Your task to perform on an android device: open app "LinkedIn" (install if not already installed) and go to login screen Image 0: 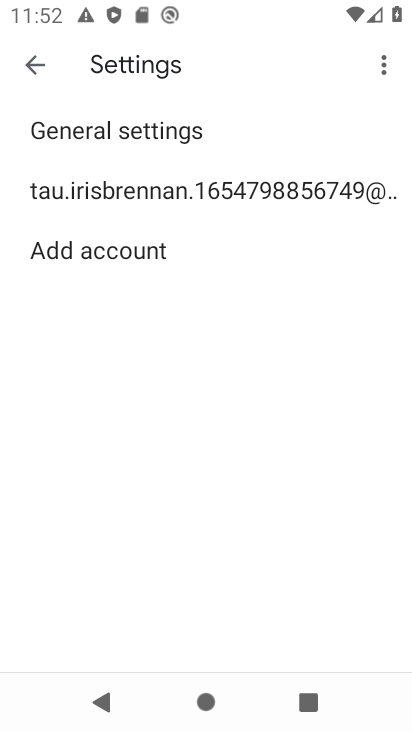
Step 0: press back button
Your task to perform on an android device: open app "LinkedIn" (install if not already installed) and go to login screen Image 1: 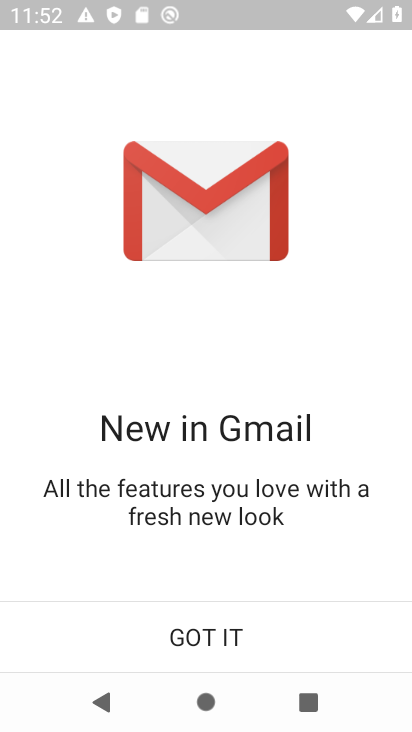
Step 1: press back button
Your task to perform on an android device: open app "LinkedIn" (install if not already installed) and go to login screen Image 2: 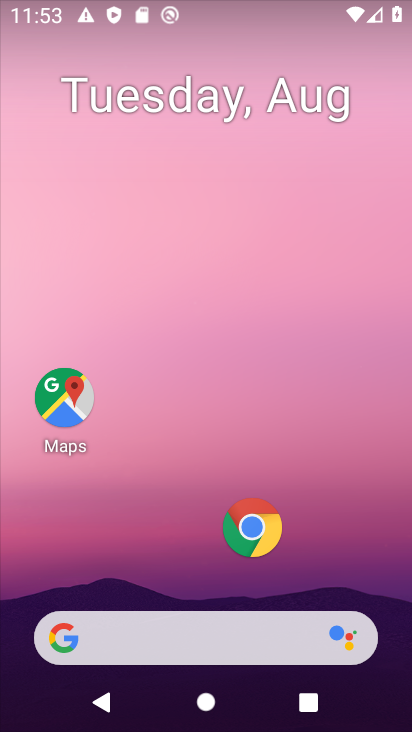
Step 2: drag from (127, 533) to (280, 97)
Your task to perform on an android device: open app "LinkedIn" (install if not already installed) and go to login screen Image 3: 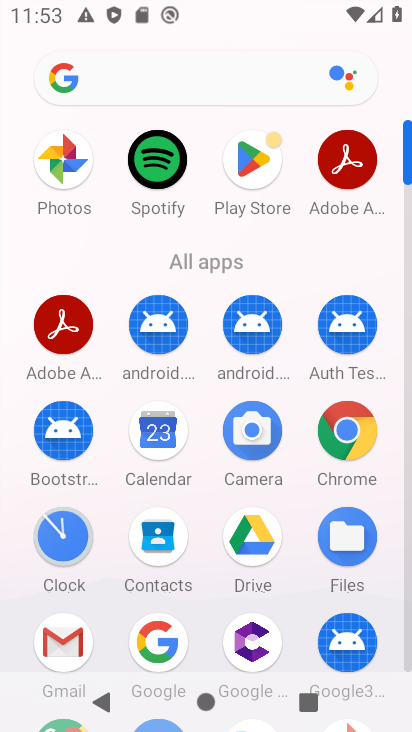
Step 3: click (248, 159)
Your task to perform on an android device: open app "LinkedIn" (install if not already installed) and go to login screen Image 4: 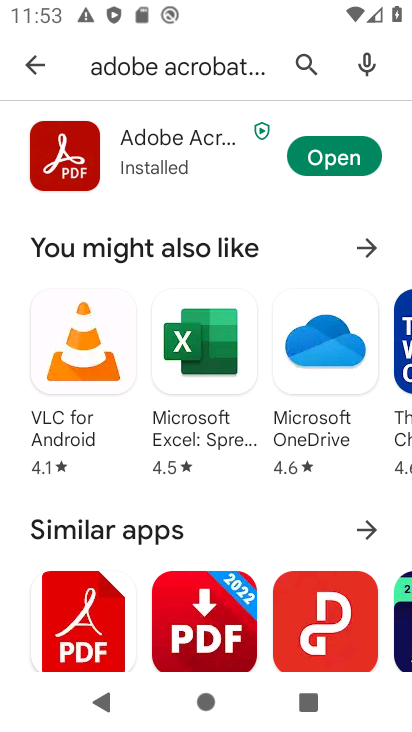
Step 4: click (314, 48)
Your task to perform on an android device: open app "LinkedIn" (install if not already installed) and go to login screen Image 5: 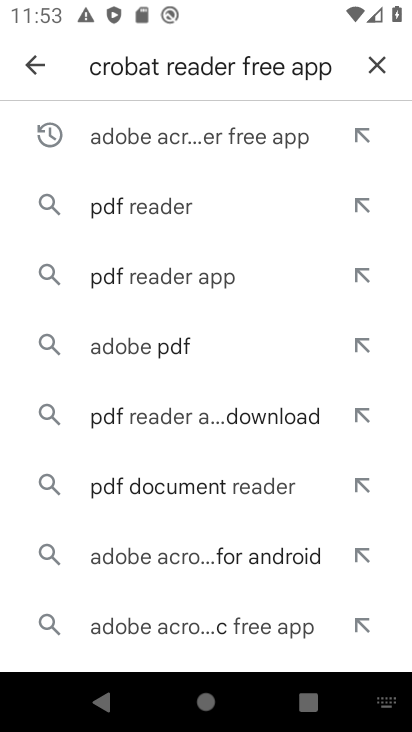
Step 5: click (379, 54)
Your task to perform on an android device: open app "LinkedIn" (install if not already installed) and go to login screen Image 6: 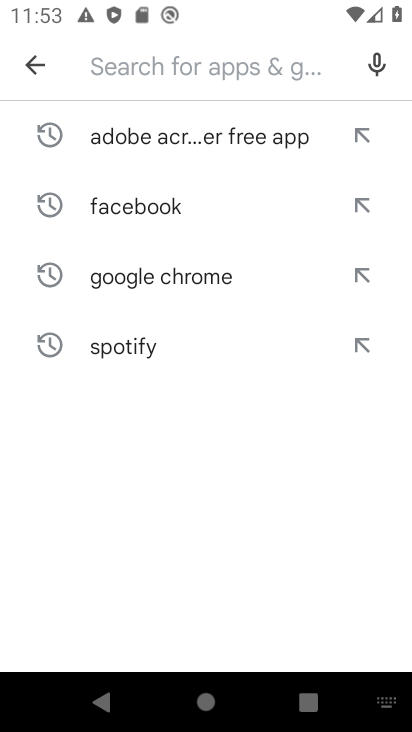
Step 6: type "linkedln"
Your task to perform on an android device: open app "LinkedIn" (install if not already installed) and go to login screen Image 7: 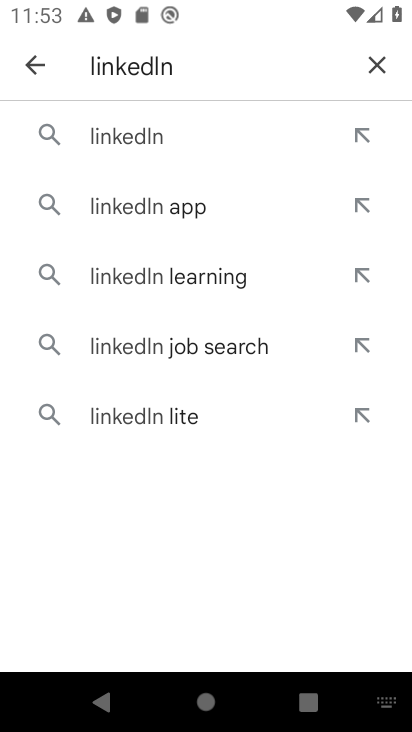
Step 7: click (192, 132)
Your task to perform on an android device: open app "LinkedIn" (install if not already installed) and go to login screen Image 8: 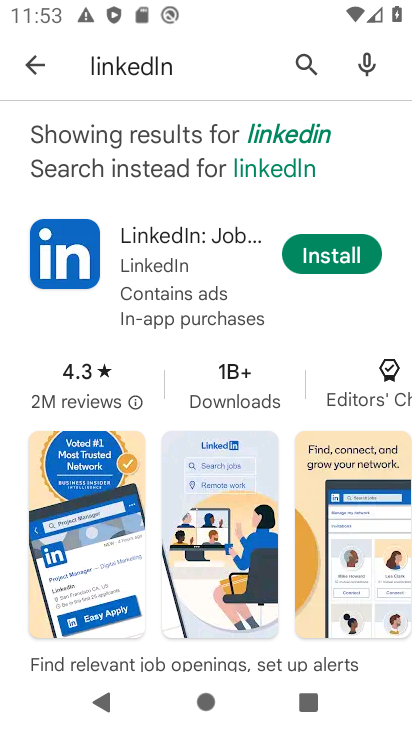
Step 8: click (306, 268)
Your task to perform on an android device: open app "LinkedIn" (install if not already installed) and go to login screen Image 9: 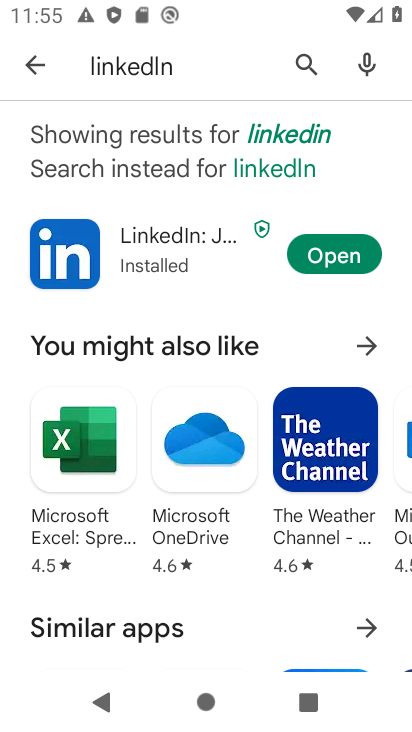
Step 9: click (293, 59)
Your task to perform on an android device: open app "LinkedIn" (install if not already installed) and go to login screen Image 10: 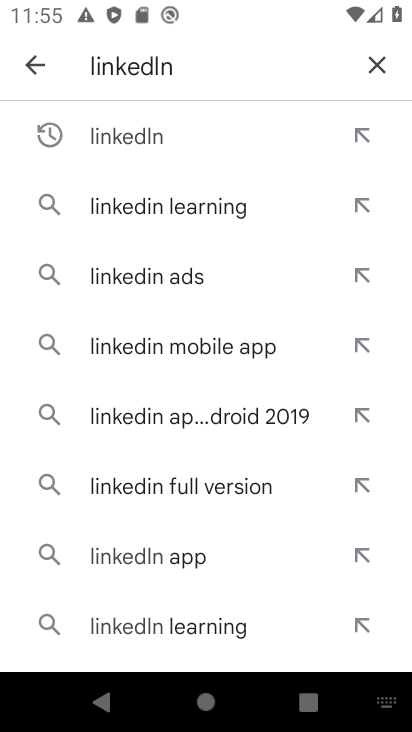
Step 10: click (163, 131)
Your task to perform on an android device: open app "LinkedIn" (install if not already installed) and go to login screen Image 11: 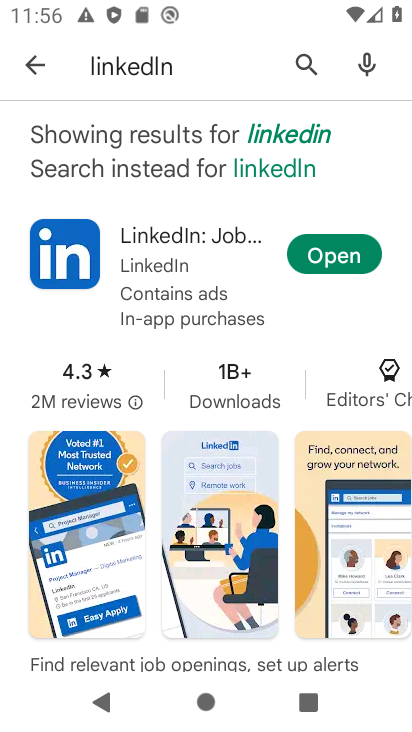
Step 11: click (355, 243)
Your task to perform on an android device: open app "LinkedIn" (install if not already installed) and go to login screen Image 12: 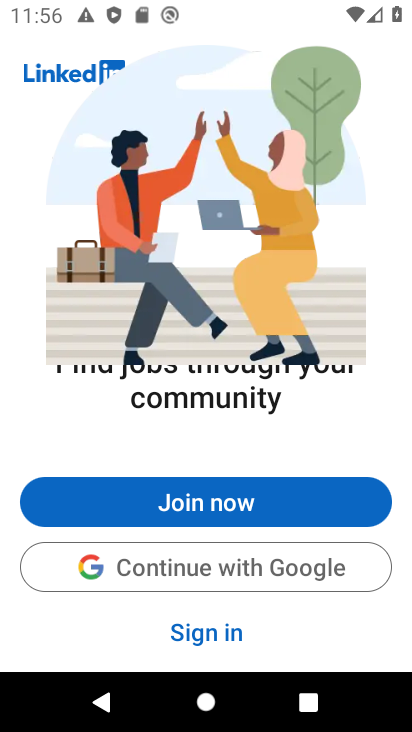
Step 12: task complete